Your task to perform on an android device: visit the assistant section in the google photos Image 0: 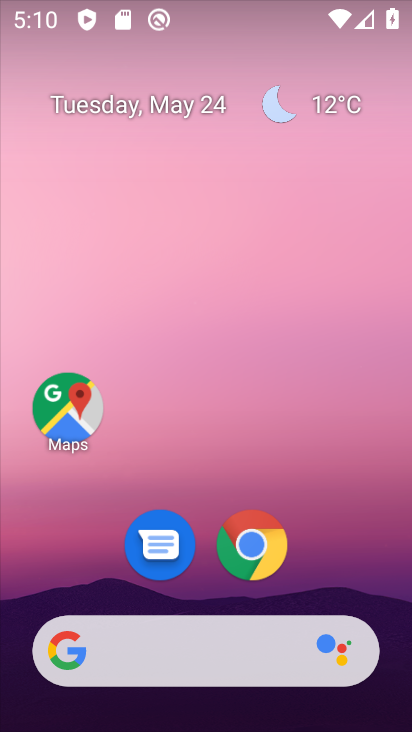
Step 0: drag from (197, 518) to (200, 207)
Your task to perform on an android device: visit the assistant section in the google photos Image 1: 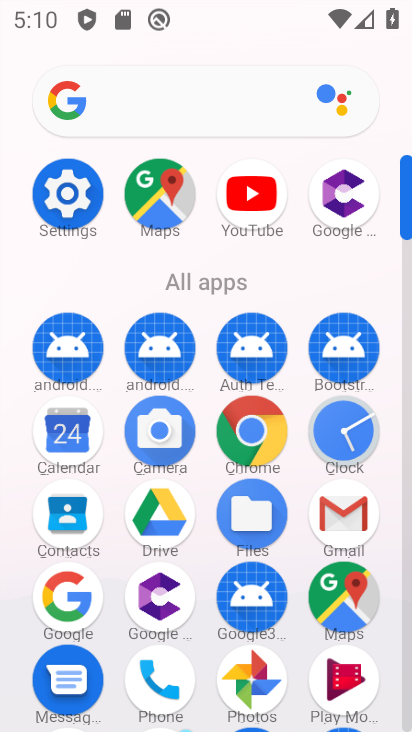
Step 1: click (247, 685)
Your task to perform on an android device: visit the assistant section in the google photos Image 2: 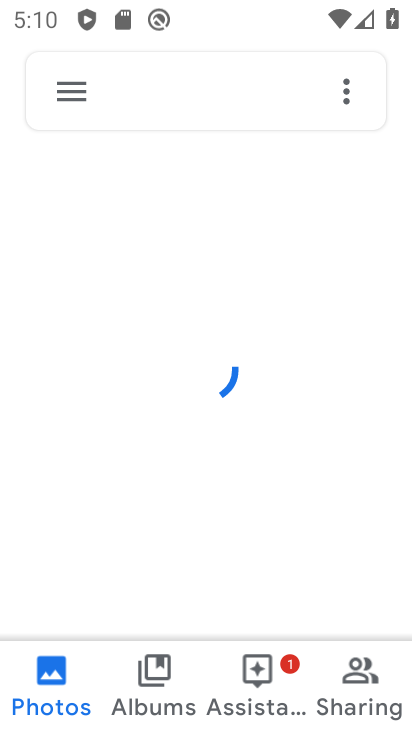
Step 2: click (260, 685)
Your task to perform on an android device: visit the assistant section in the google photos Image 3: 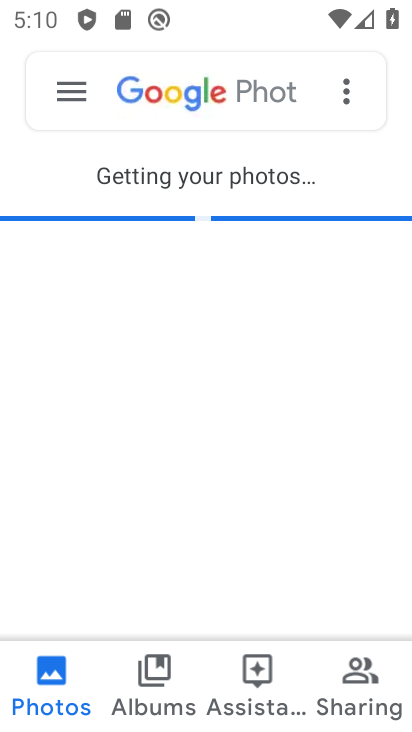
Step 3: task complete